Your task to perform on an android device: add a contact in the contacts app Image 0: 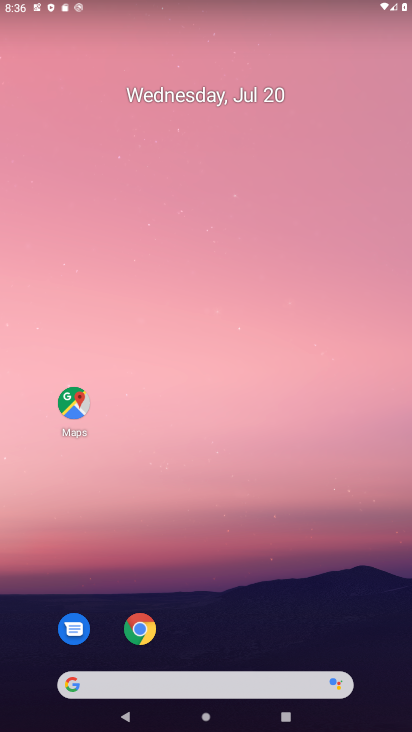
Step 0: drag from (187, 693) to (180, 326)
Your task to perform on an android device: add a contact in the contacts app Image 1: 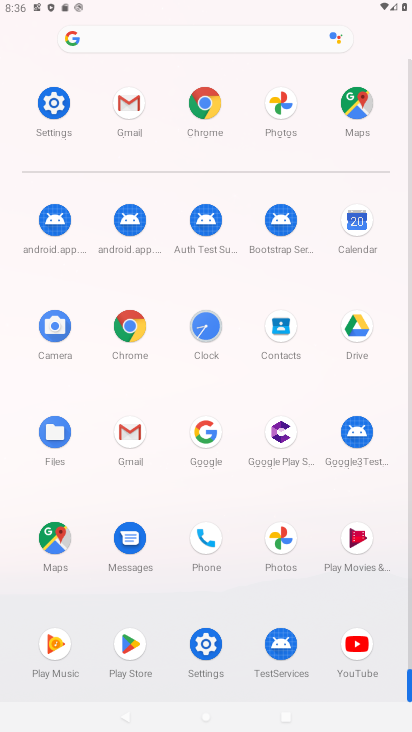
Step 1: click (280, 323)
Your task to perform on an android device: add a contact in the contacts app Image 2: 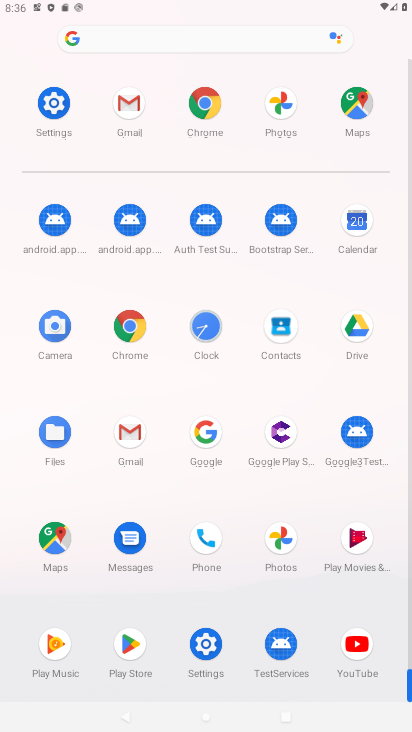
Step 2: click (280, 326)
Your task to perform on an android device: add a contact in the contacts app Image 3: 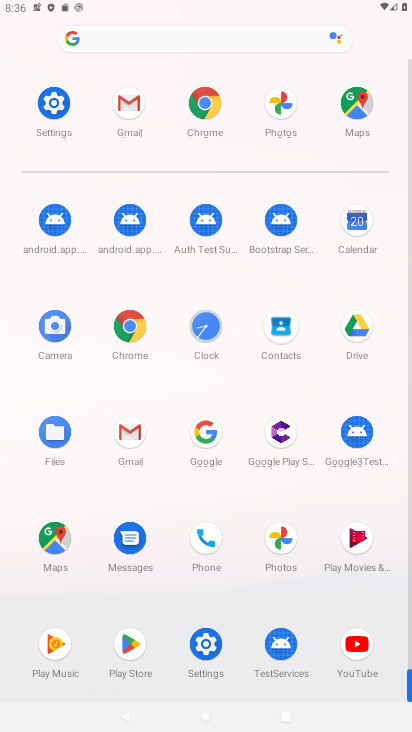
Step 3: click (279, 327)
Your task to perform on an android device: add a contact in the contacts app Image 4: 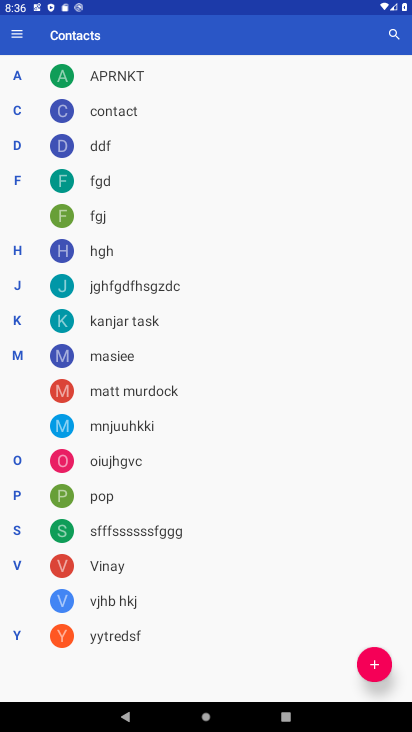
Step 4: click (379, 677)
Your task to perform on an android device: add a contact in the contacts app Image 5: 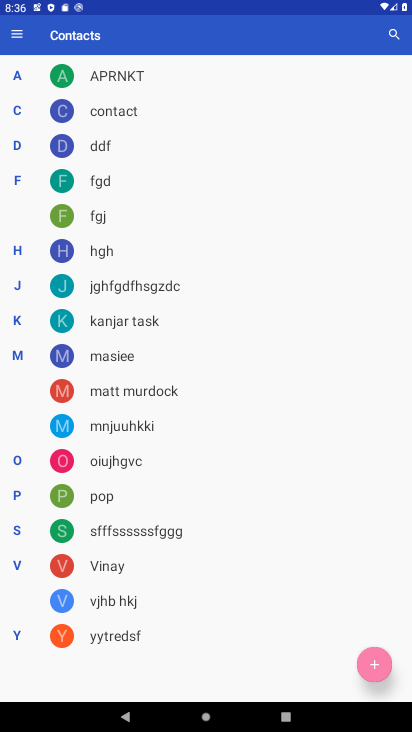
Step 5: click (379, 676)
Your task to perform on an android device: add a contact in the contacts app Image 6: 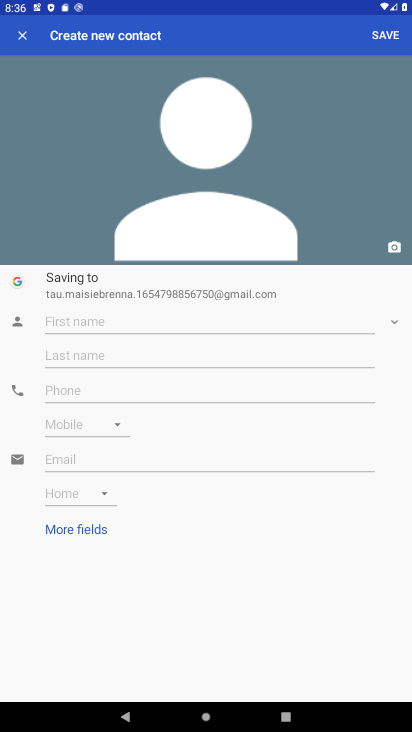
Step 6: click (64, 324)
Your task to perform on an android device: add a contact in the contacts app Image 7: 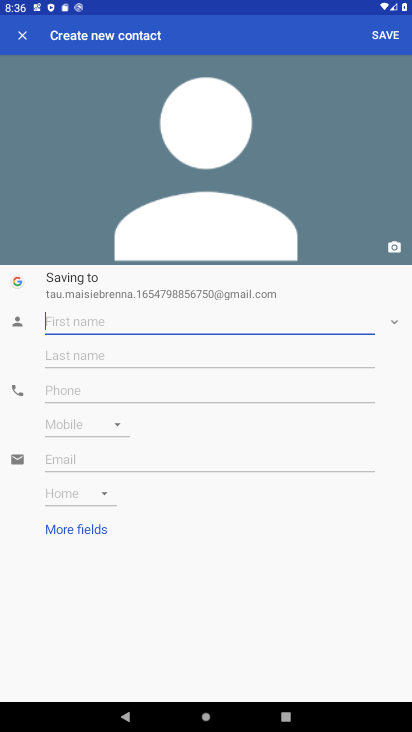
Step 7: click (68, 315)
Your task to perform on an android device: add a contact in the contacts app Image 8: 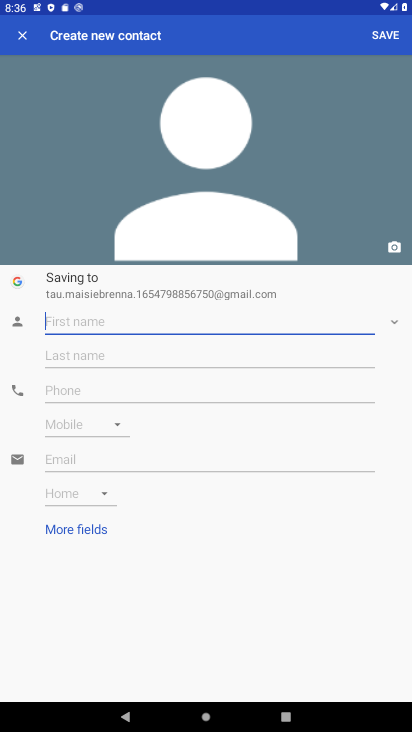
Step 8: click (68, 315)
Your task to perform on an android device: add a contact in the contacts app Image 9: 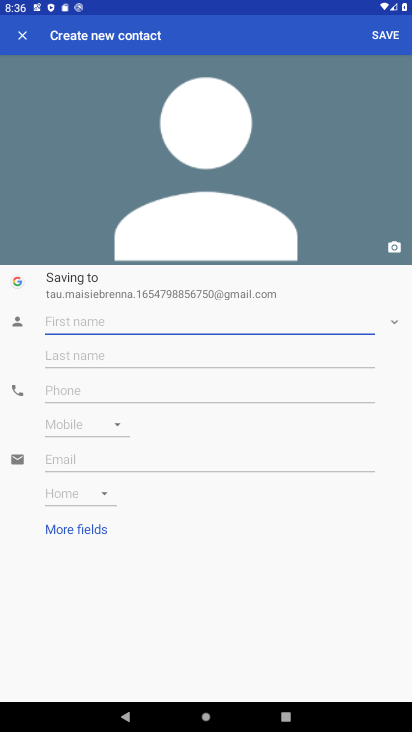
Step 9: click (68, 315)
Your task to perform on an android device: add a contact in the contacts app Image 10: 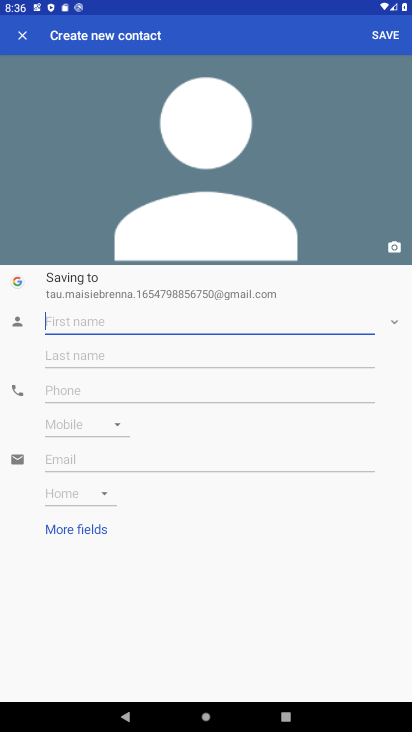
Step 10: type "bf bbhchjjh"
Your task to perform on an android device: add a contact in the contacts app Image 11: 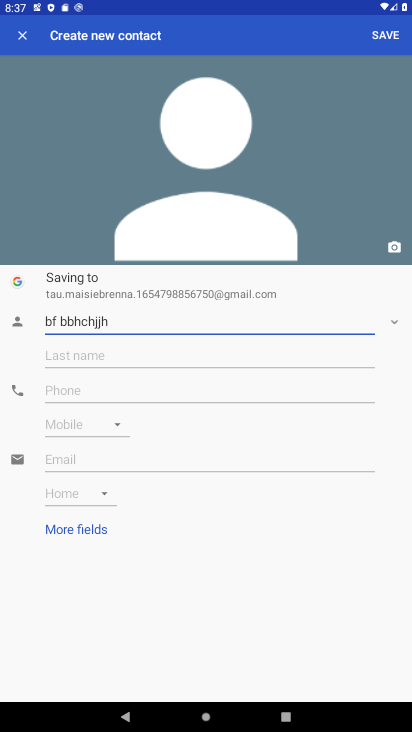
Step 11: click (61, 393)
Your task to perform on an android device: add a contact in the contacts app Image 12: 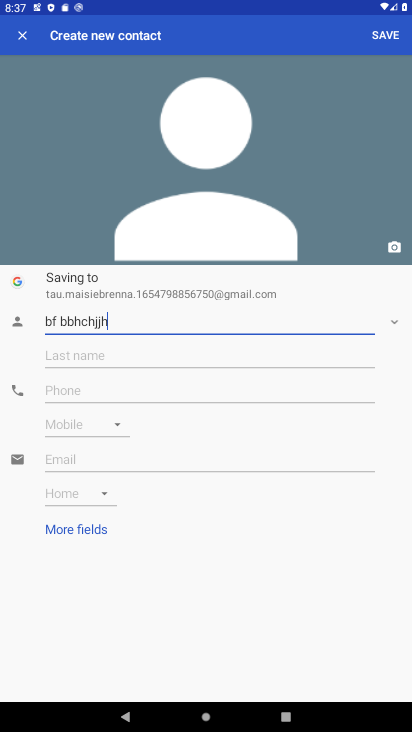
Step 12: click (61, 393)
Your task to perform on an android device: add a contact in the contacts app Image 13: 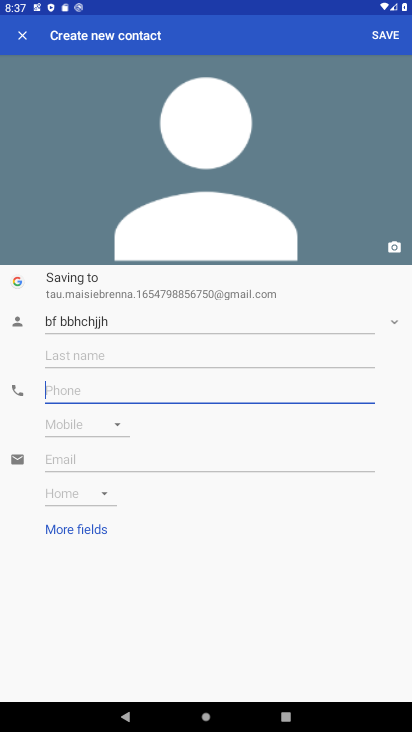
Step 13: click (61, 393)
Your task to perform on an android device: add a contact in the contacts app Image 14: 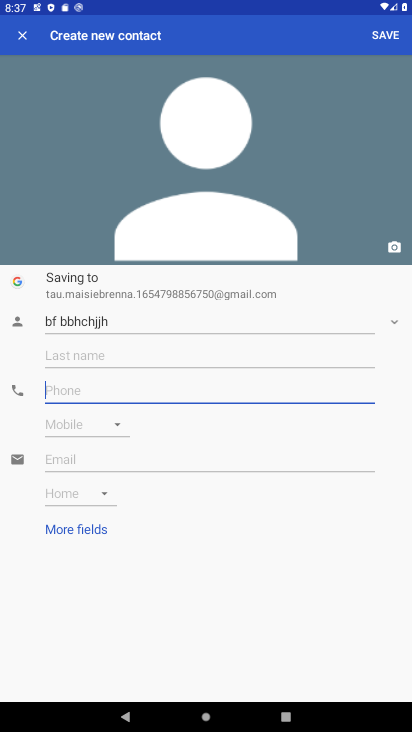
Step 14: click (61, 393)
Your task to perform on an android device: add a contact in the contacts app Image 15: 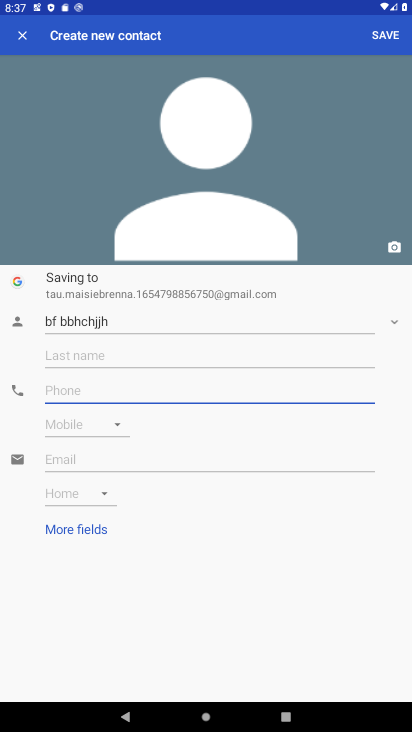
Step 15: type "789797984789"
Your task to perform on an android device: add a contact in the contacts app Image 16: 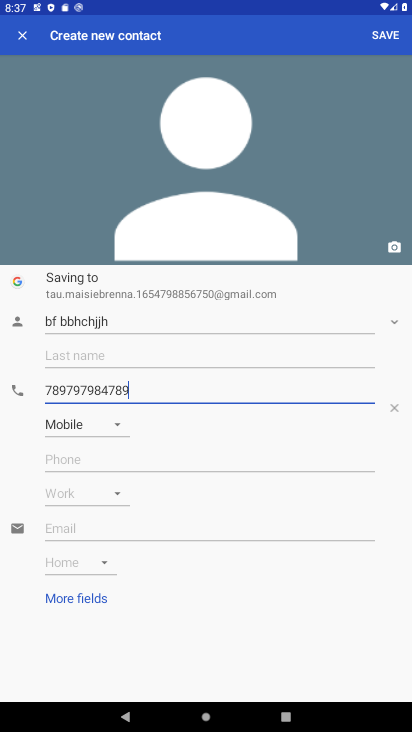
Step 16: click (383, 30)
Your task to perform on an android device: add a contact in the contacts app Image 17: 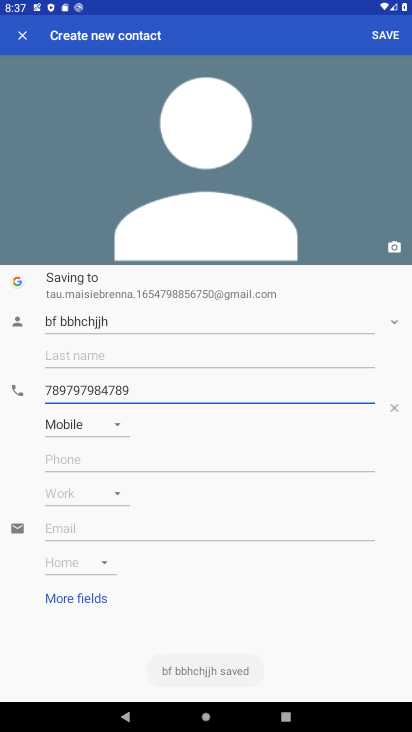
Step 17: click (383, 30)
Your task to perform on an android device: add a contact in the contacts app Image 18: 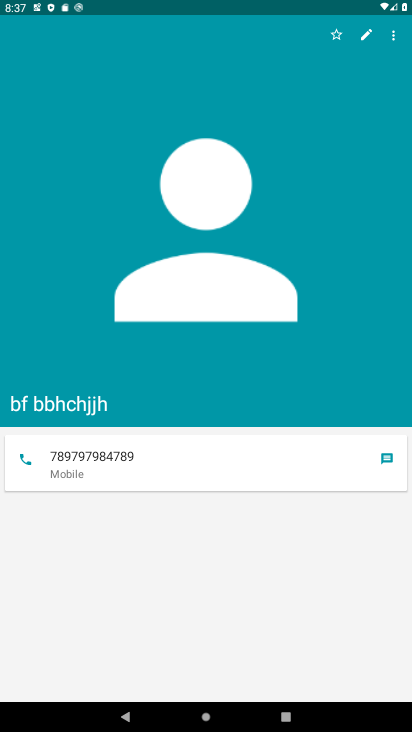
Step 18: task complete